Your task to perform on an android device: check data usage Image 0: 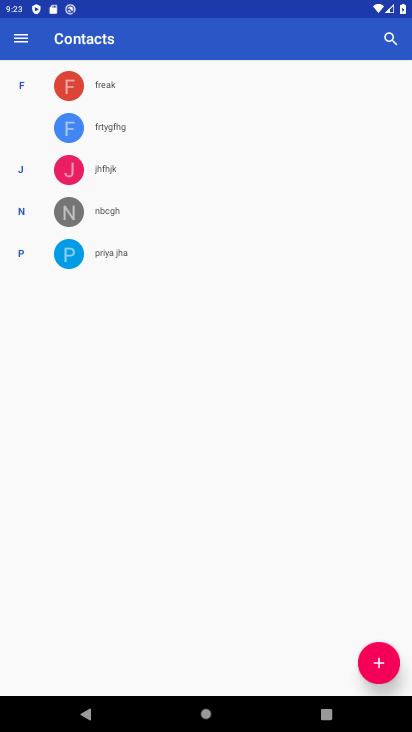
Step 0: press home button
Your task to perform on an android device: check data usage Image 1: 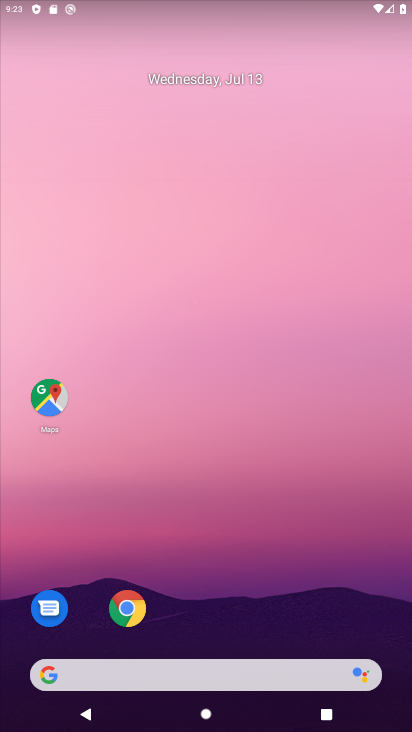
Step 1: drag from (20, 700) to (184, 159)
Your task to perform on an android device: check data usage Image 2: 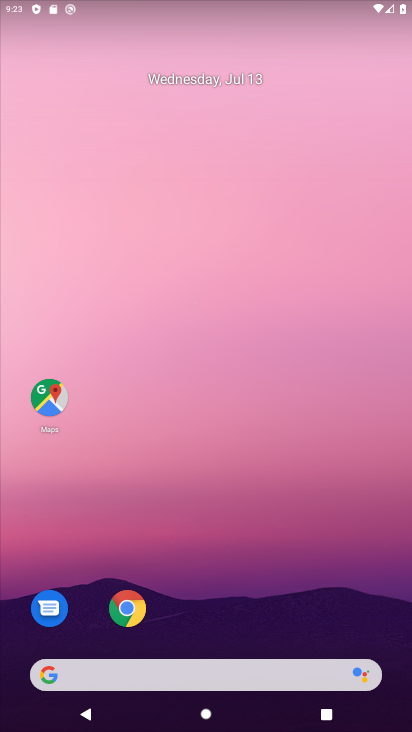
Step 2: drag from (40, 715) to (271, 4)
Your task to perform on an android device: check data usage Image 3: 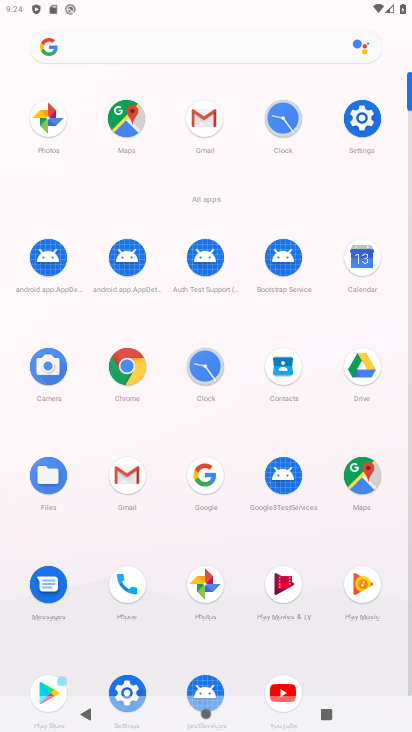
Step 3: click (134, 685)
Your task to perform on an android device: check data usage Image 4: 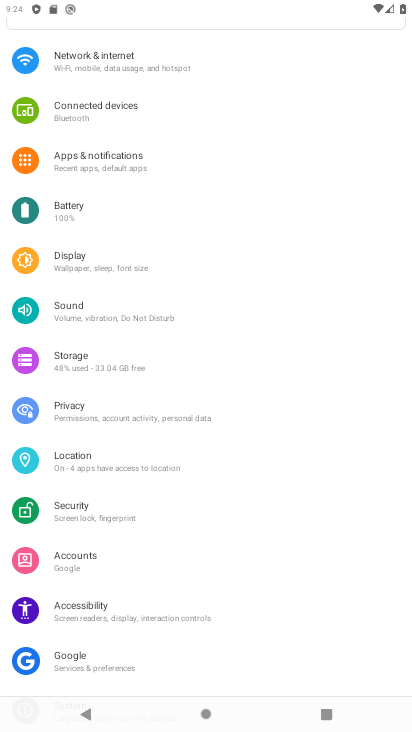
Step 4: click (140, 55)
Your task to perform on an android device: check data usage Image 5: 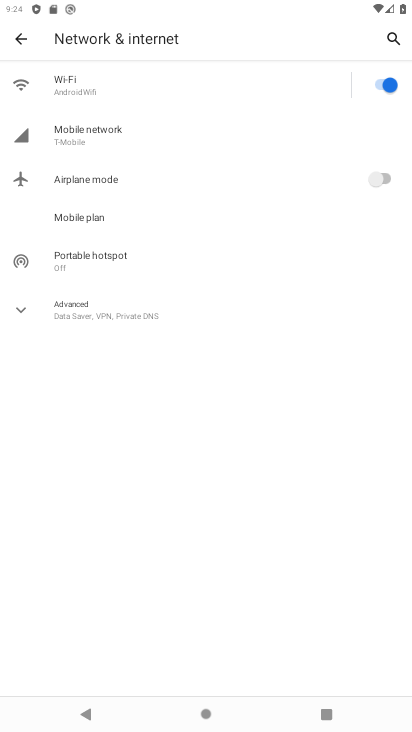
Step 5: click (111, 306)
Your task to perform on an android device: check data usage Image 6: 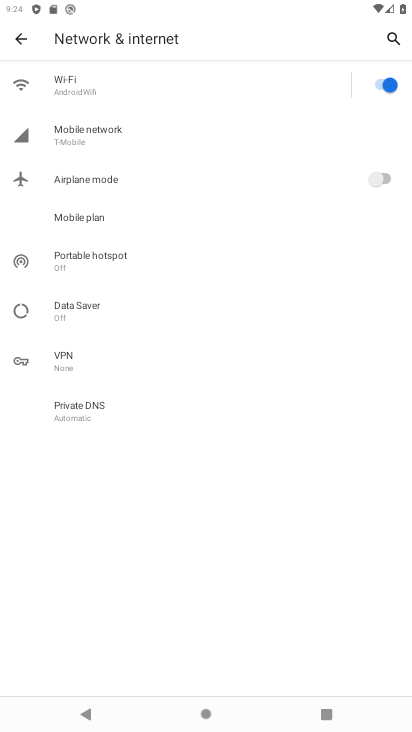
Step 6: click (97, 137)
Your task to perform on an android device: check data usage Image 7: 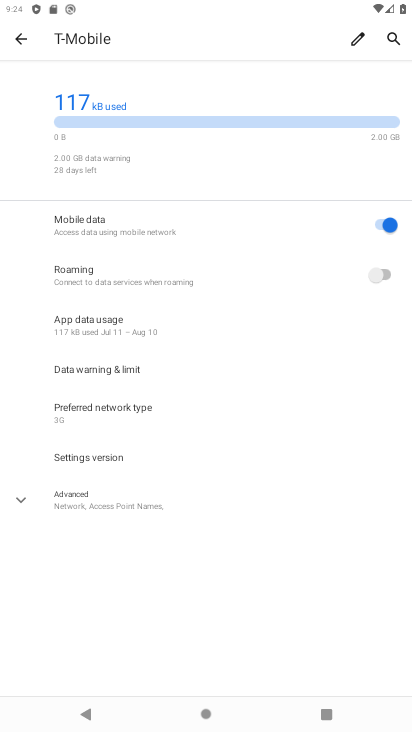
Step 7: task complete